Your task to perform on an android device: Check the news Image 0: 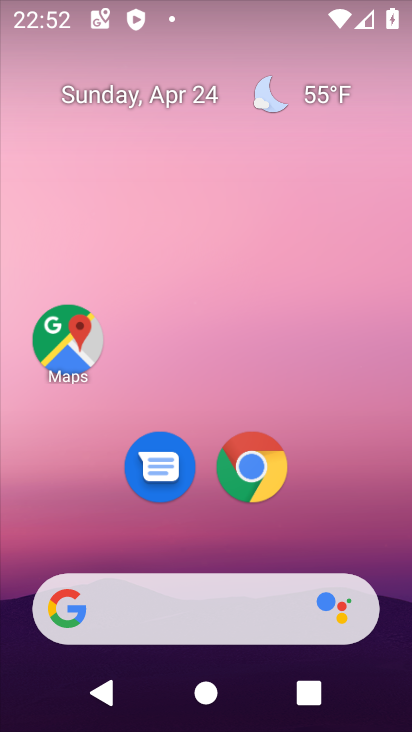
Step 0: drag from (228, 460) to (253, 215)
Your task to perform on an android device: Check the news Image 1: 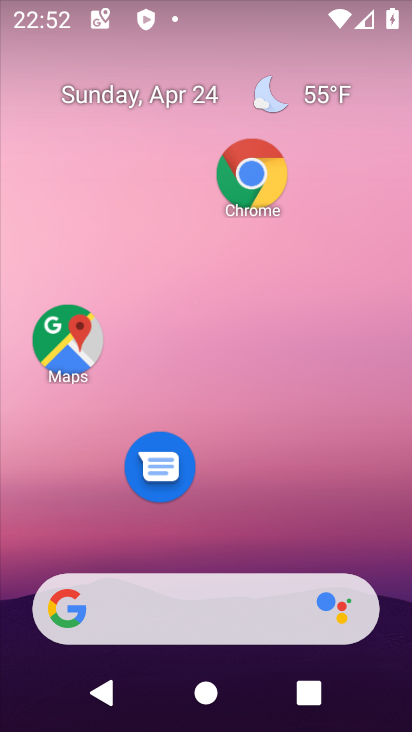
Step 1: click (248, 496)
Your task to perform on an android device: Check the news Image 2: 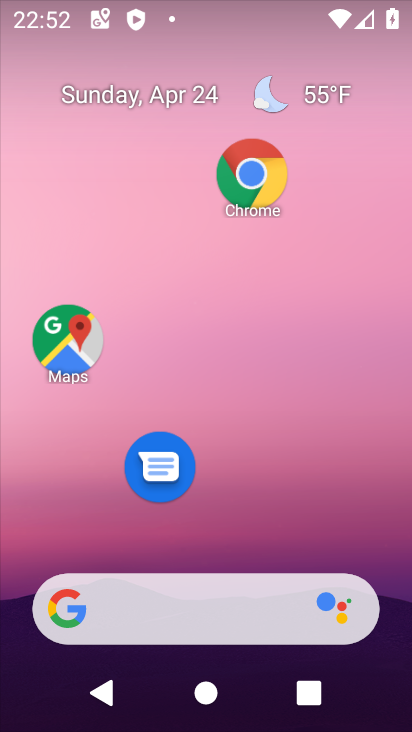
Step 2: drag from (232, 534) to (249, 27)
Your task to perform on an android device: Check the news Image 3: 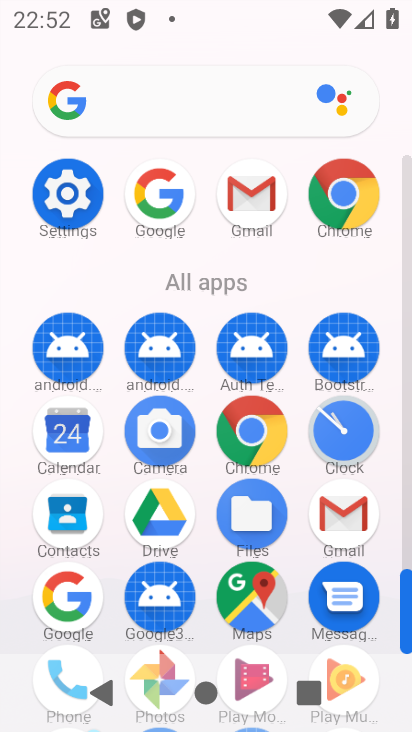
Step 3: click (68, 598)
Your task to perform on an android device: Check the news Image 4: 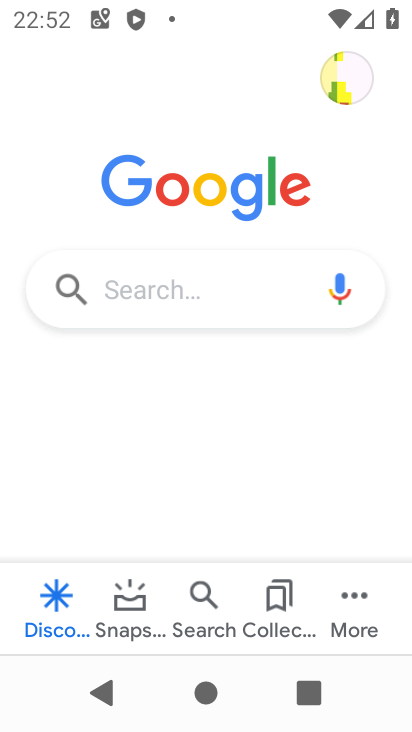
Step 4: click (171, 299)
Your task to perform on an android device: Check the news Image 5: 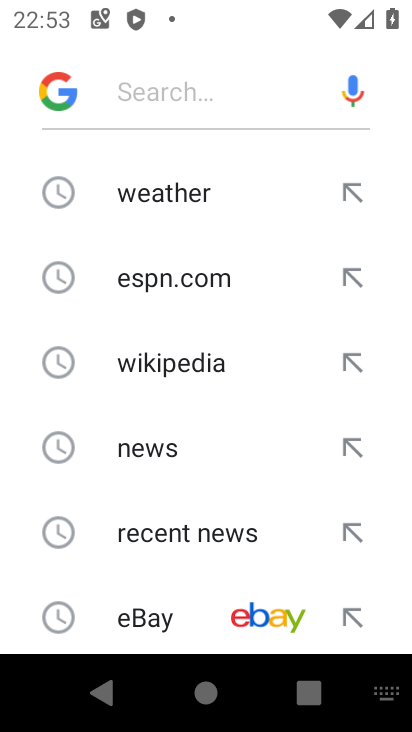
Step 5: click (162, 453)
Your task to perform on an android device: Check the news Image 6: 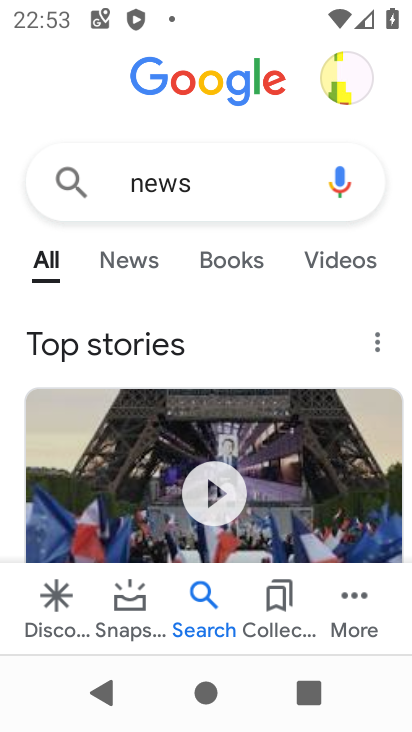
Step 6: task complete